Your task to perform on an android device: Open Youtube and go to "Your channel" Image 0: 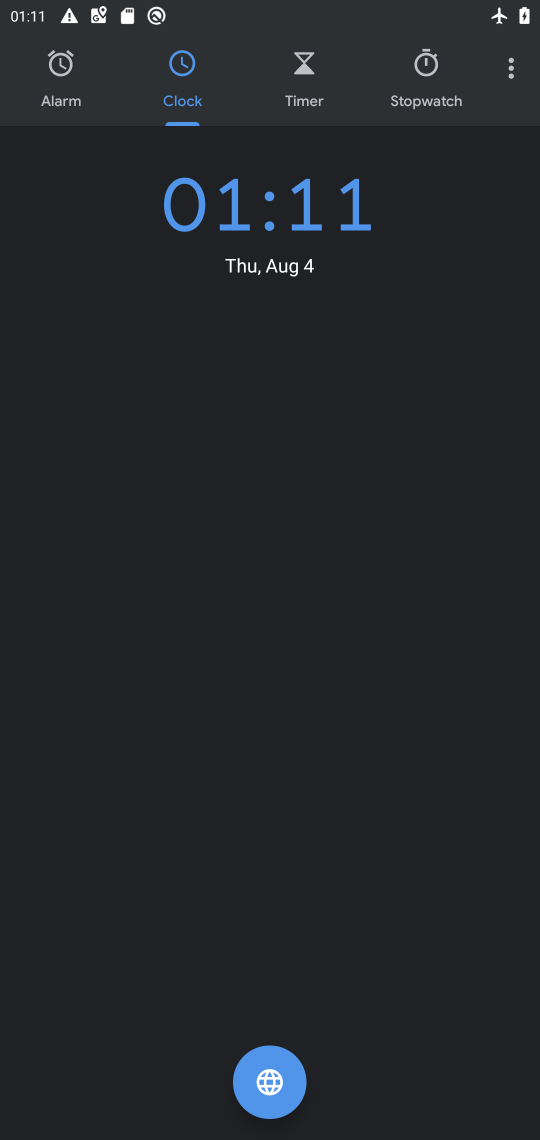
Step 0: press home button
Your task to perform on an android device: Open Youtube and go to "Your channel" Image 1: 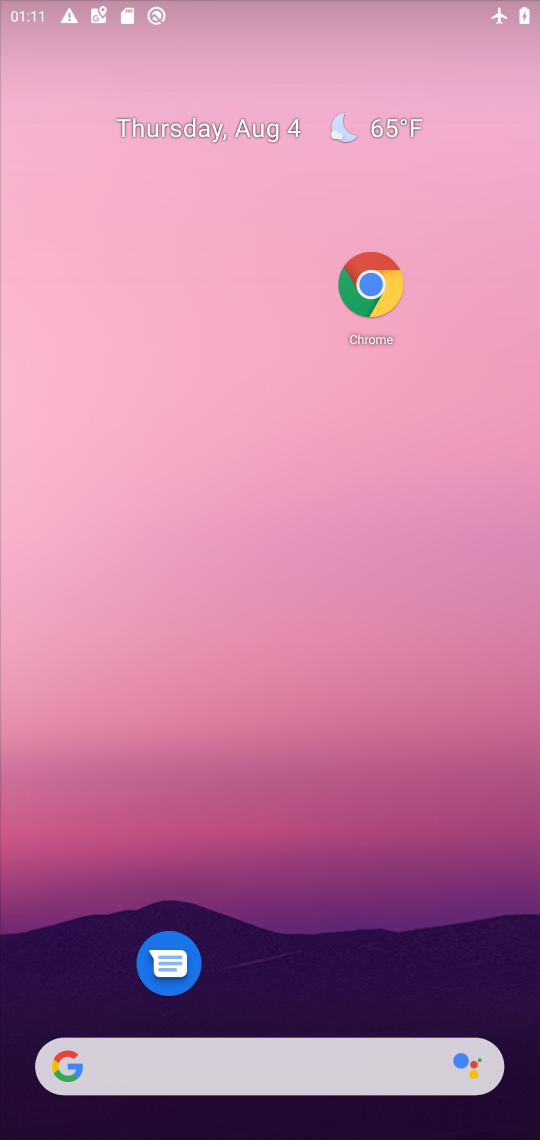
Step 1: drag from (417, 974) to (320, 384)
Your task to perform on an android device: Open Youtube and go to "Your channel" Image 2: 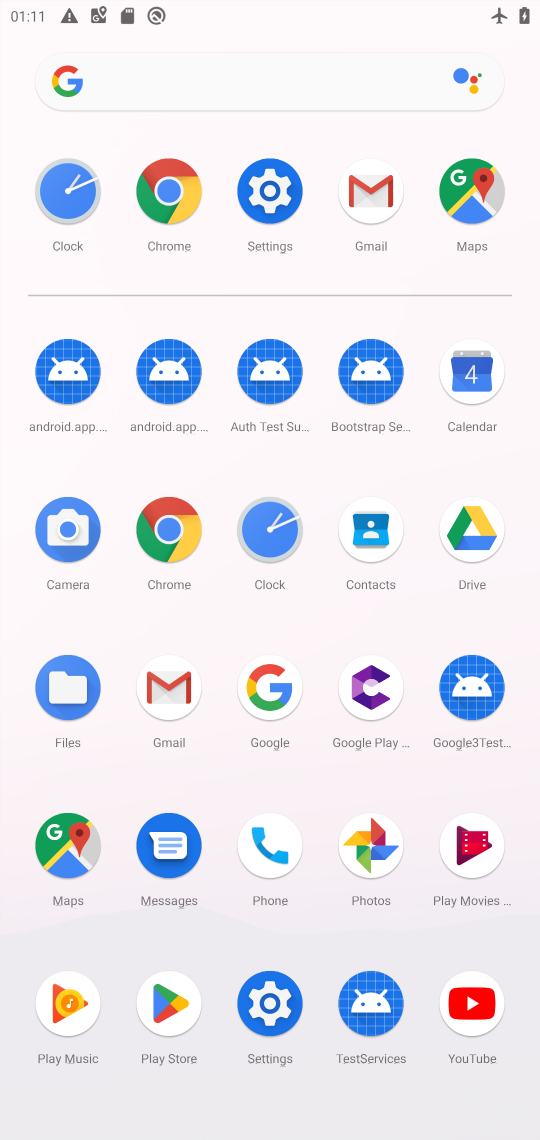
Step 2: click (469, 1018)
Your task to perform on an android device: Open Youtube and go to "Your channel" Image 3: 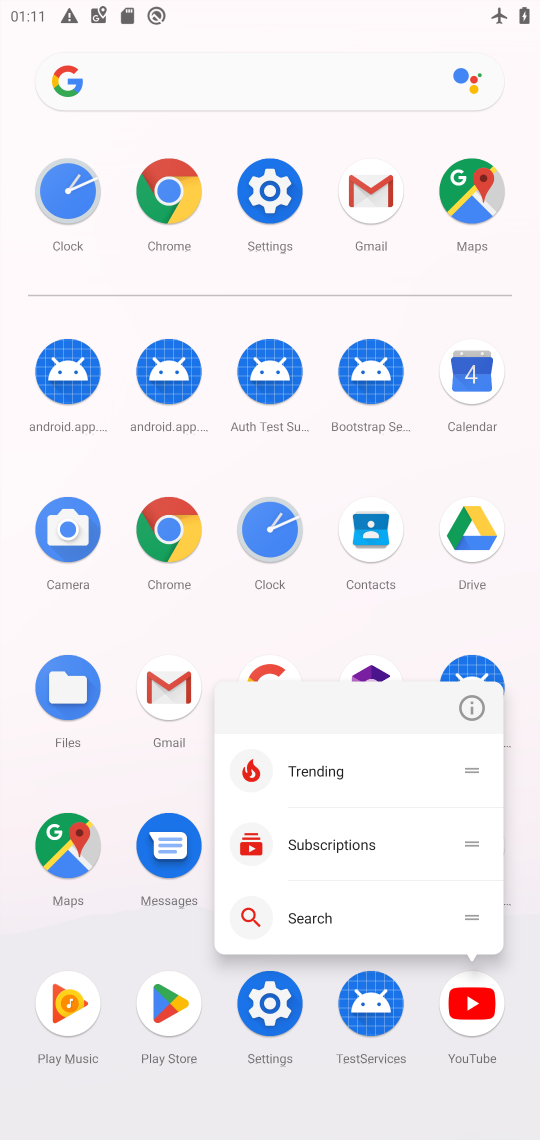
Step 3: click (469, 1018)
Your task to perform on an android device: Open Youtube and go to "Your channel" Image 4: 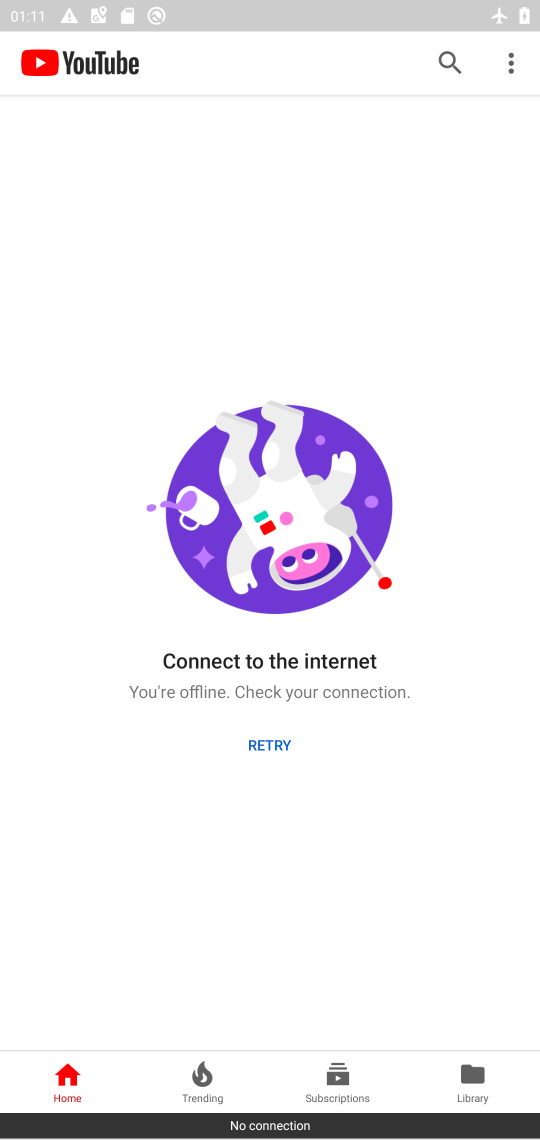
Step 4: click (457, 56)
Your task to perform on an android device: Open Youtube and go to "Your channel" Image 5: 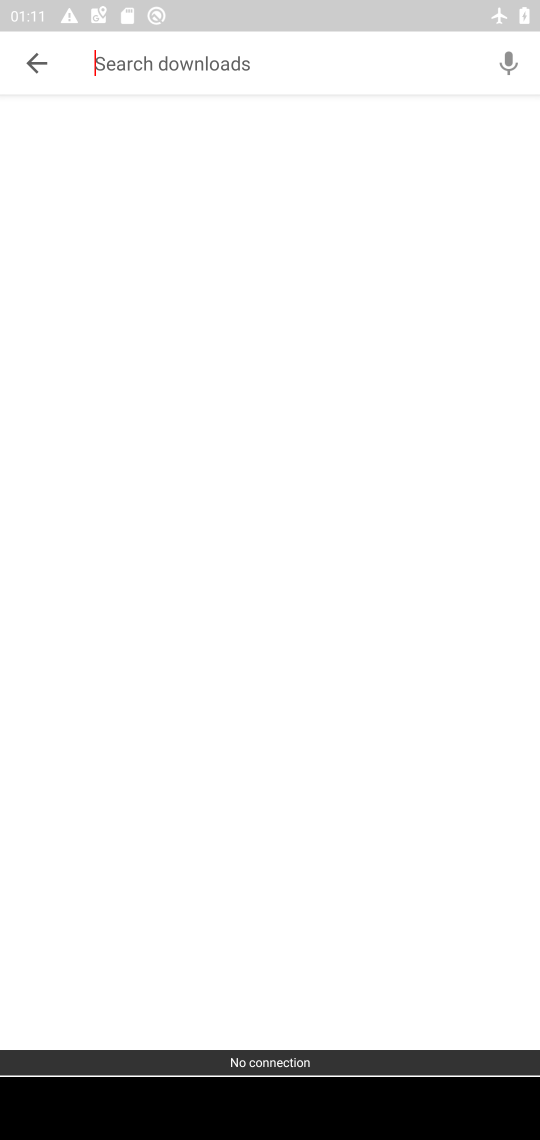
Step 5: type "india animal "
Your task to perform on an android device: Open Youtube and go to "Your channel" Image 6: 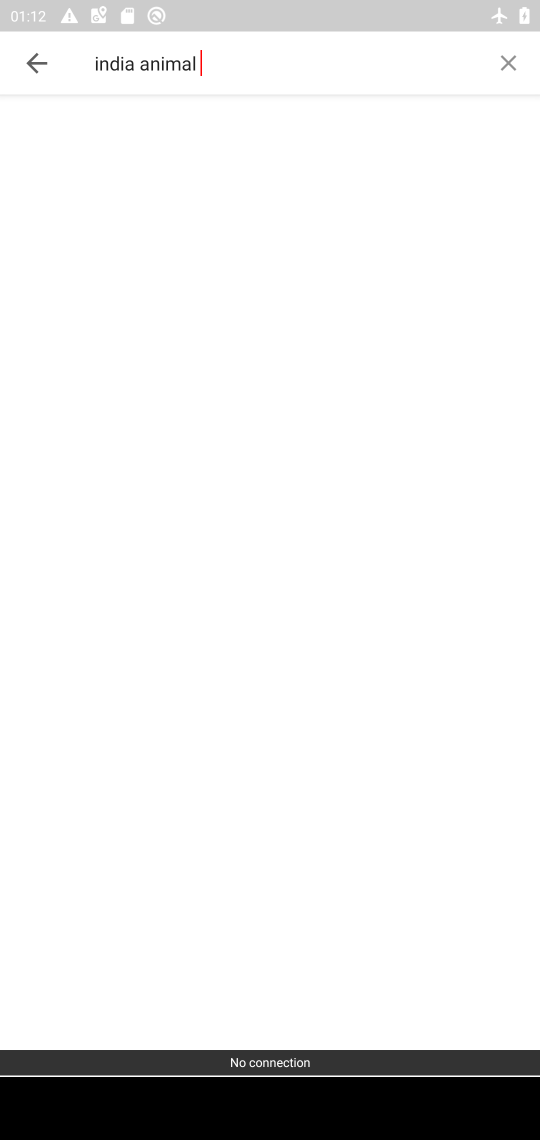
Step 6: task complete